Your task to perform on an android device: Toggle the flashlight Image 0: 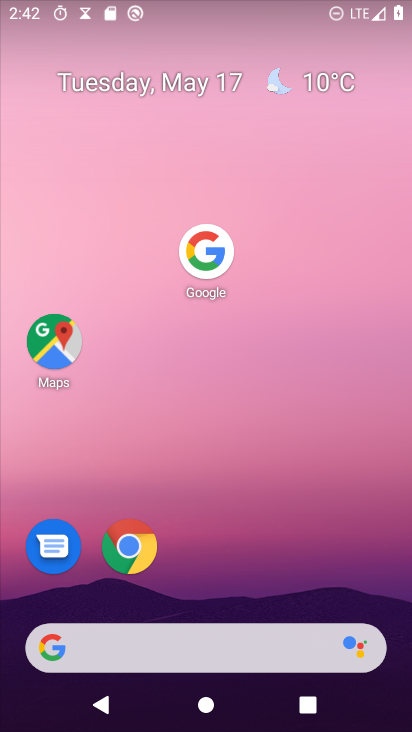
Step 0: press home button
Your task to perform on an android device: Toggle the flashlight Image 1: 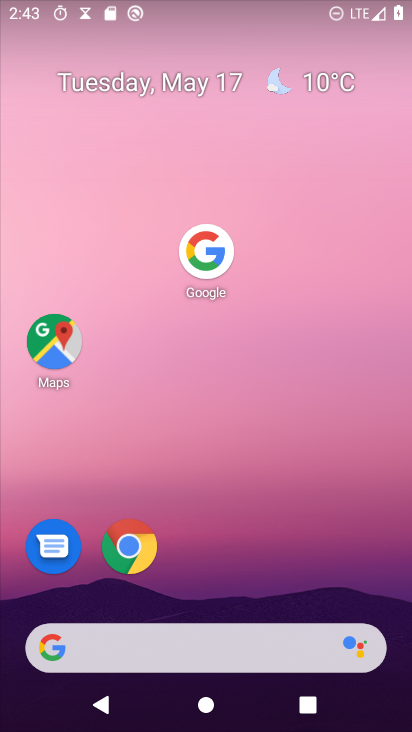
Step 1: task complete